Your task to perform on an android device: turn pop-ups off in chrome Image 0: 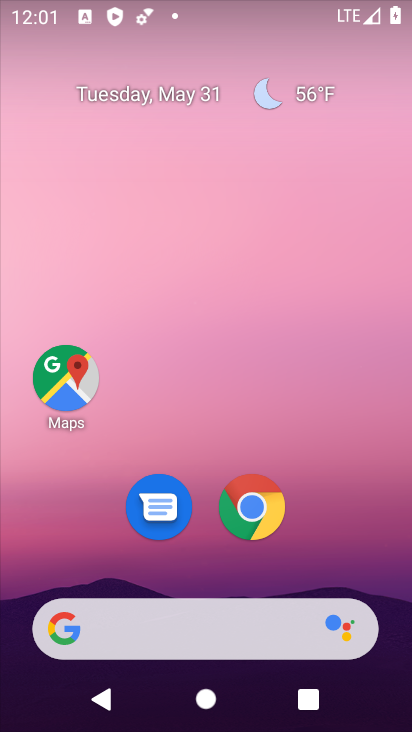
Step 0: drag from (399, 643) to (300, 133)
Your task to perform on an android device: turn pop-ups off in chrome Image 1: 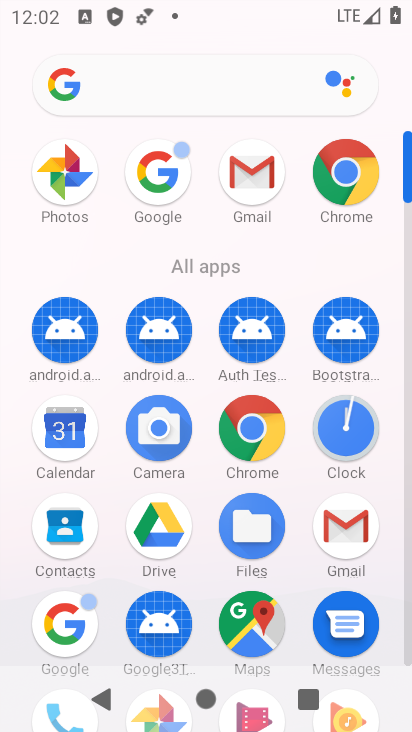
Step 1: click (340, 172)
Your task to perform on an android device: turn pop-ups off in chrome Image 2: 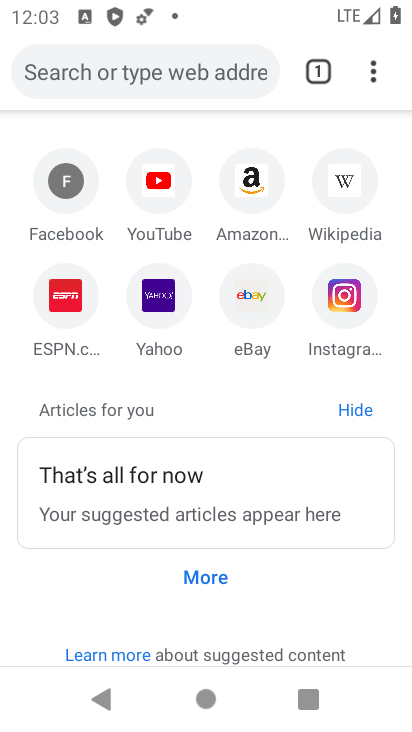
Step 2: click (367, 65)
Your task to perform on an android device: turn pop-ups off in chrome Image 3: 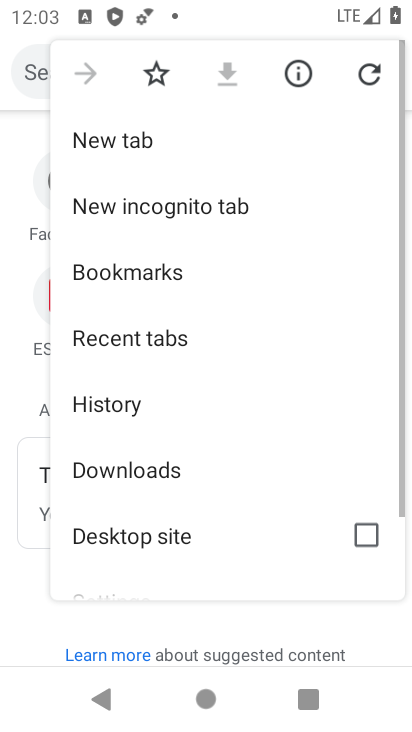
Step 3: drag from (186, 538) to (236, 159)
Your task to perform on an android device: turn pop-ups off in chrome Image 4: 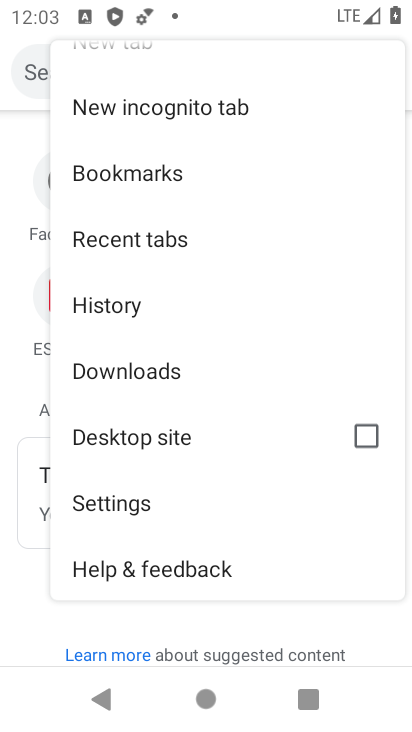
Step 4: click (117, 508)
Your task to perform on an android device: turn pop-ups off in chrome Image 5: 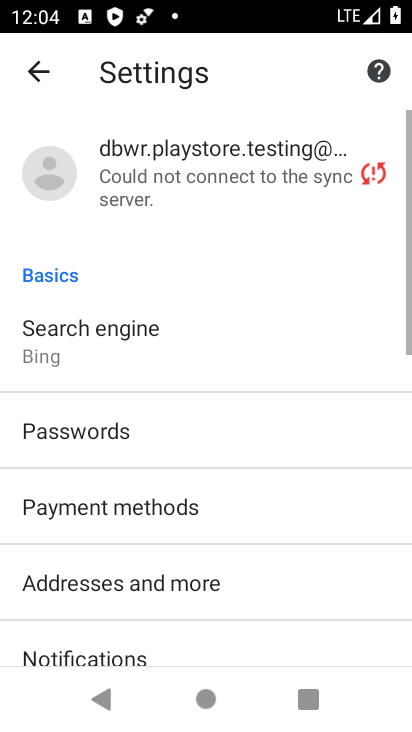
Step 5: drag from (135, 581) to (243, 167)
Your task to perform on an android device: turn pop-ups off in chrome Image 6: 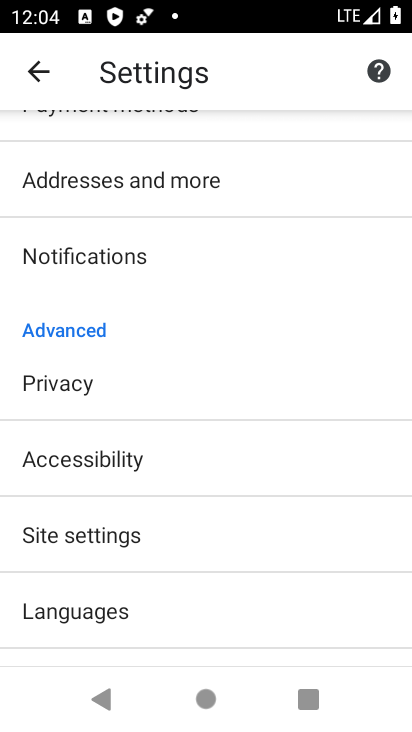
Step 6: click (135, 538)
Your task to perform on an android device: turn pop-ups off in chrome Image 7: 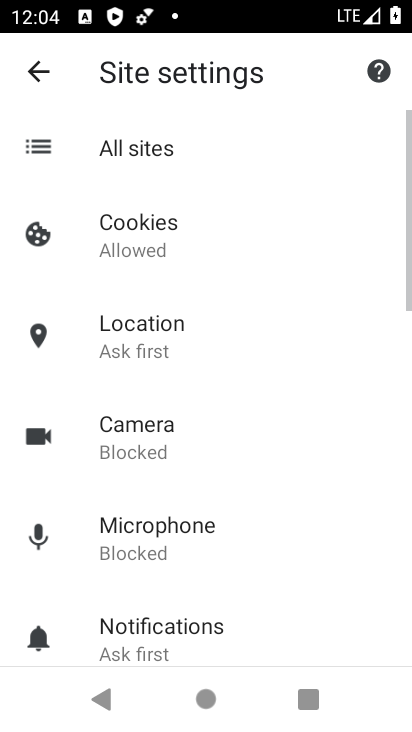
Step 7: drag from (178, 611) to (225, 242)
Your task to perform on an android device: turn pop-ups off in chrome Image 8: 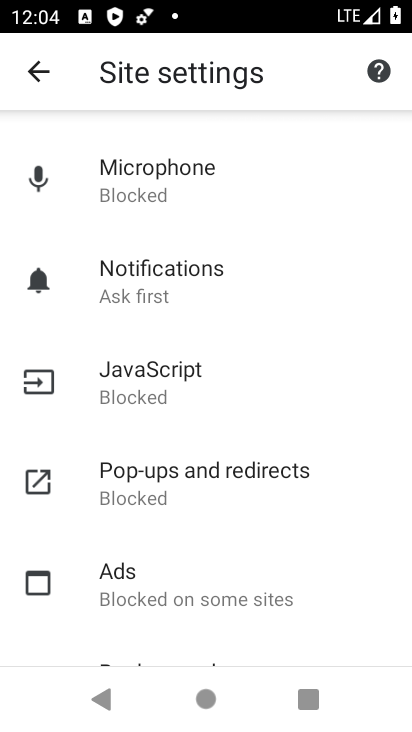
Step 8: click (210, 475)
Your task to perform on an android device: turn pop-ups off in chrome Image 9: 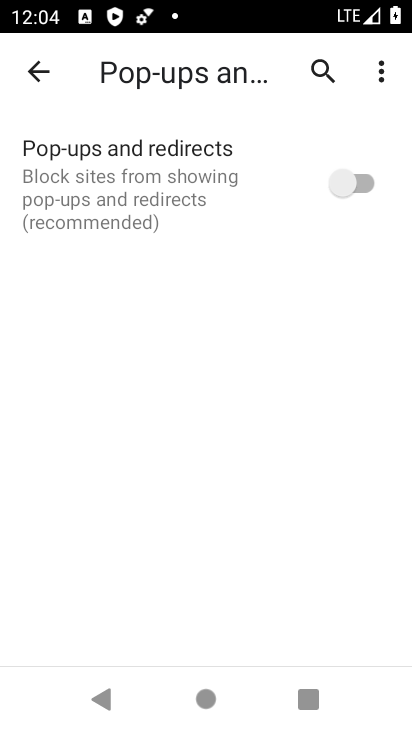
Step 9: task complete